Your task to perform on an android device: Clear all items from cart on ebay. Search for asus zenbook on ebay, select the first entry, and add it to the cart. Image 0: 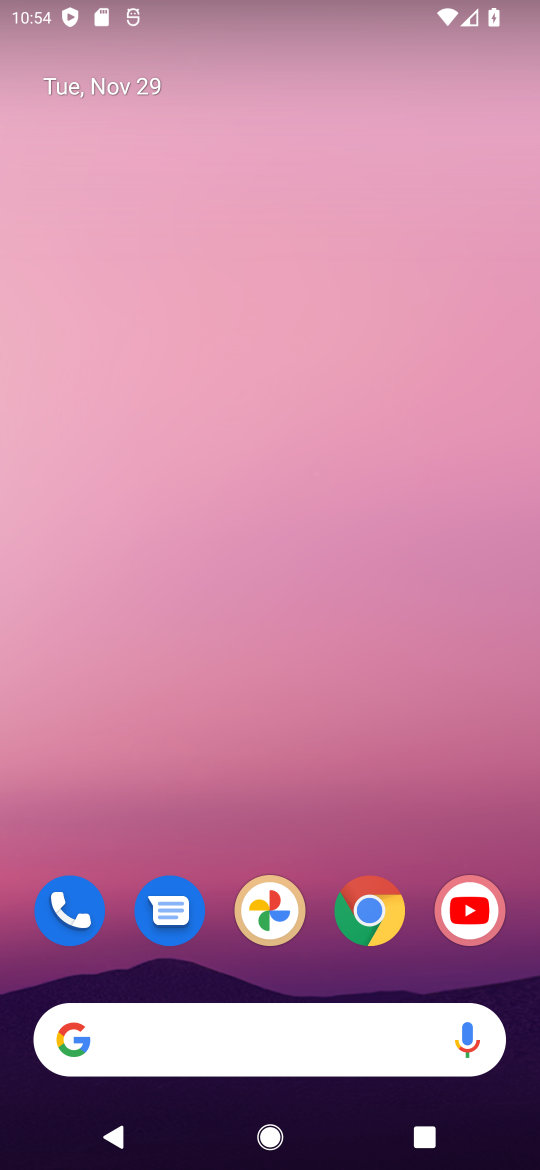
Step 0: click (371, 922)
Your task to perform on an android device: Clear all items from cart on ebay. Search for asus zenbook on ebay, select the first entry, and add it to the cart. Image 1: 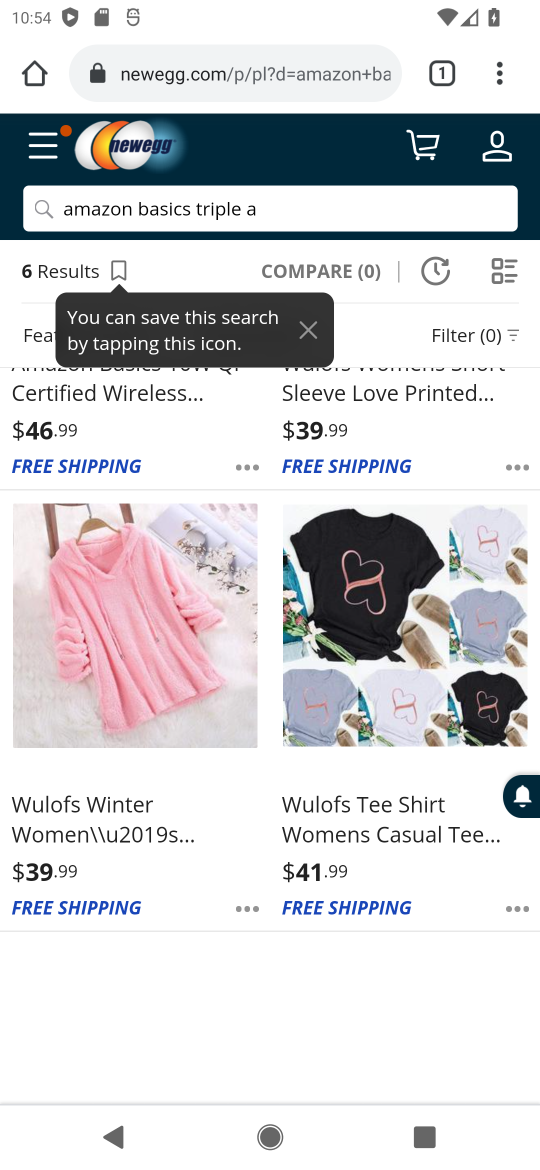
Step 1: click (225, 75)
Your task to perform on an android device: Clear all items from cart on ebay. Search for asus zenbook on ebay, select the first entry, and add it to the cart. Image 2: 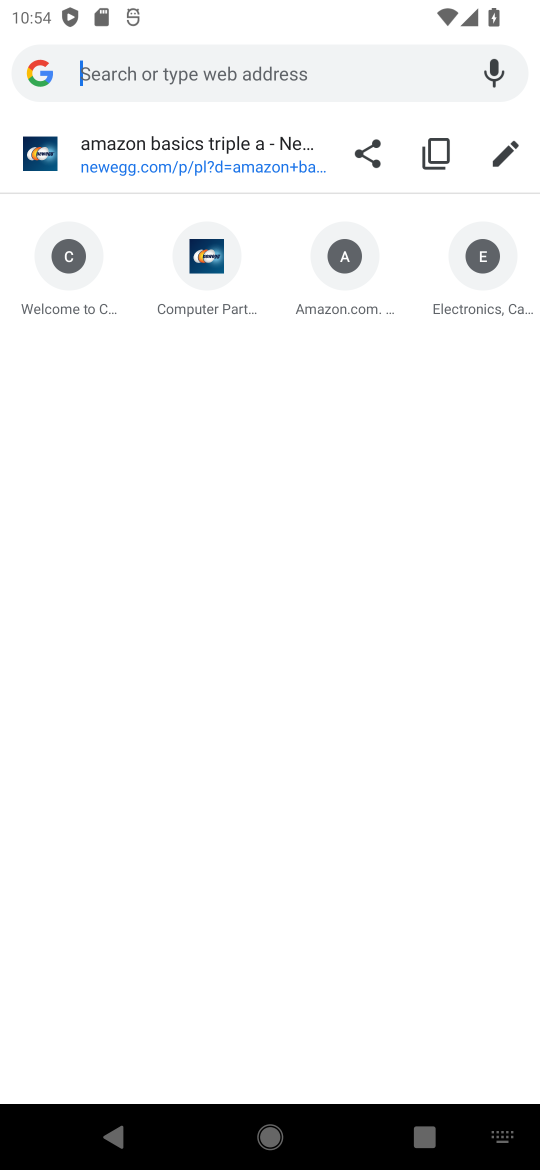
Step 2: type "ebay.com"
Your task to perform on an android device: Clear all items from cart on ebay. Search for asus zenbook on ebay, select the first entry, and add it to the cart. Image 3: 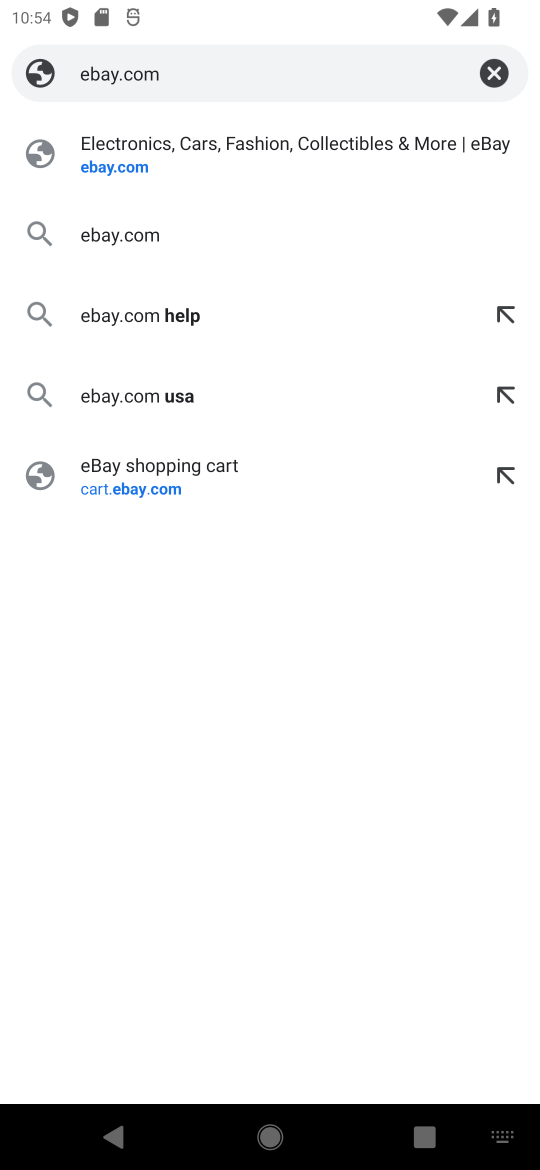
Step 3: click (86, 179)
Your task to perform on an android device: Clear all items from cart on ebay. Search for asus zenbook on ebay, select the first entry, and add it to the cart. Image 4: 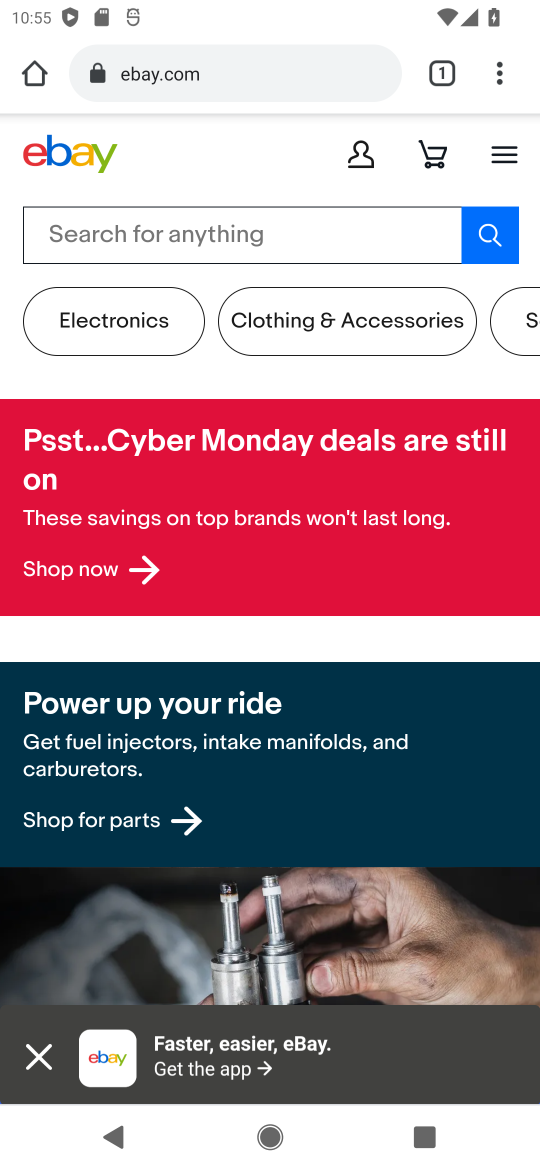
Step 4: click (438, 155)
Your task to perform on an android device: Clear all items from cart on ebay. Search for asus zenbook on ebay, select the first entry, and add it to the cart. Image 5: 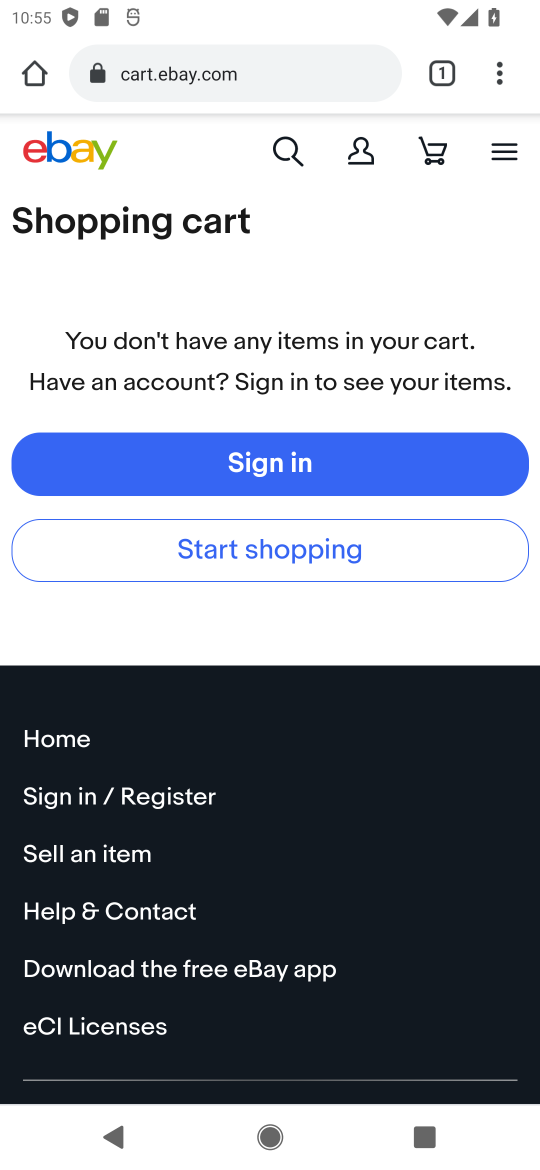
Step 5: click (293, 154)
Your task to perform on an android device: Clear all items from cart on ebay. Search for asus zenbook on ebay, select the first entry, and add it to the cart. Image 6: 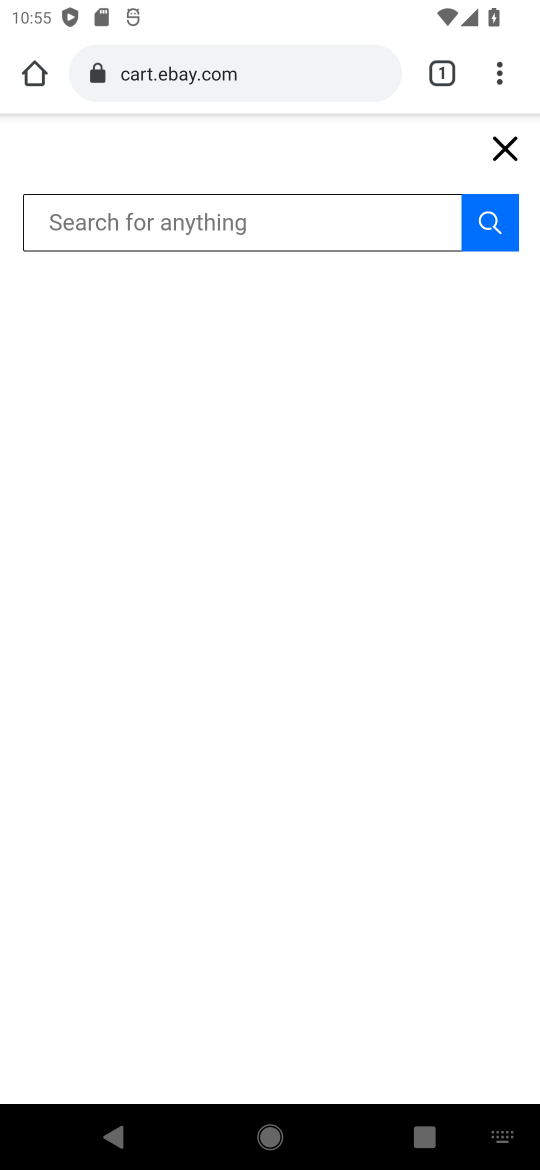
Step 6: type "asus zenbook"
Your task to perform on an android device: Clear all items from cart on ebay. Search for asus zenbook on ebay, select the first entry, and add it to the cart. Image 7: 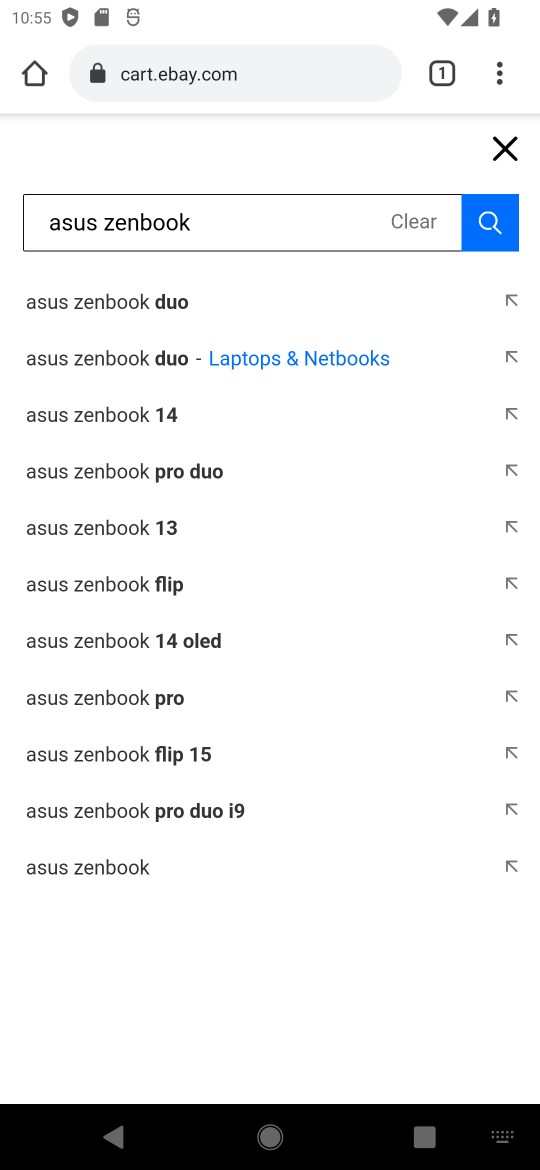
Step 7: click (81, 870)
Your task to perform on an android device: Clear all items from cart on ebay. Search for asus zenbook on ebay, select the first entry, and add it to the cart. Image 8: 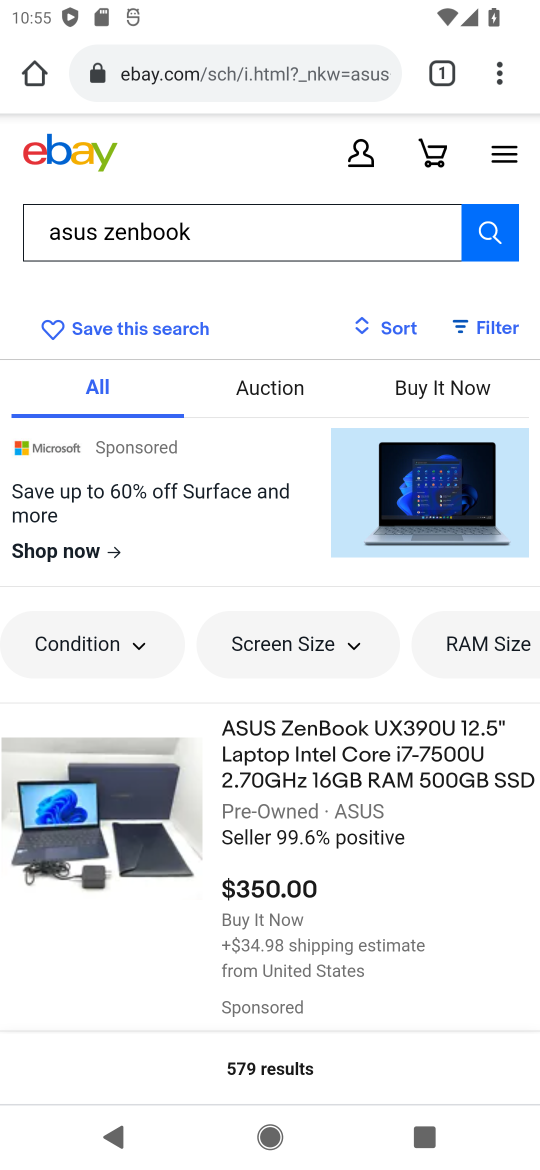
Step 8: drag from (146, 724) to (118, 455)
Your task to perform on an android device: Clear all items from cart on ebay. Search for asus zenbook on ebay, select the first entry, and add it to the cart. Image 9: 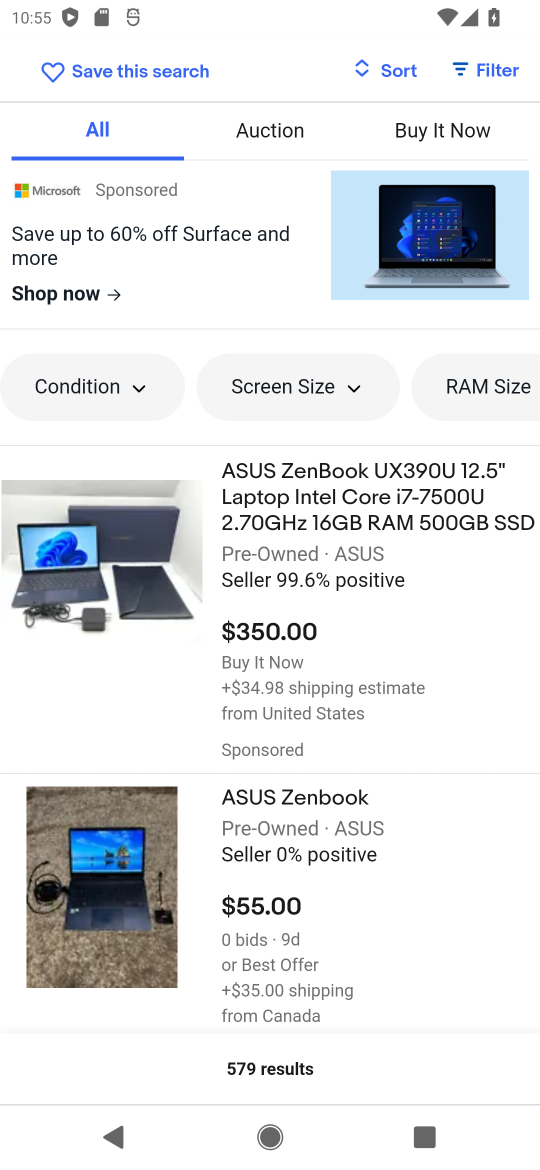
Step 9: click (298, 537)
Your task to perform on an android device: Clear all items from cart on ebay. Search for asus zenbook on ebay, select the first entry, and add it to the cart. Image 10: 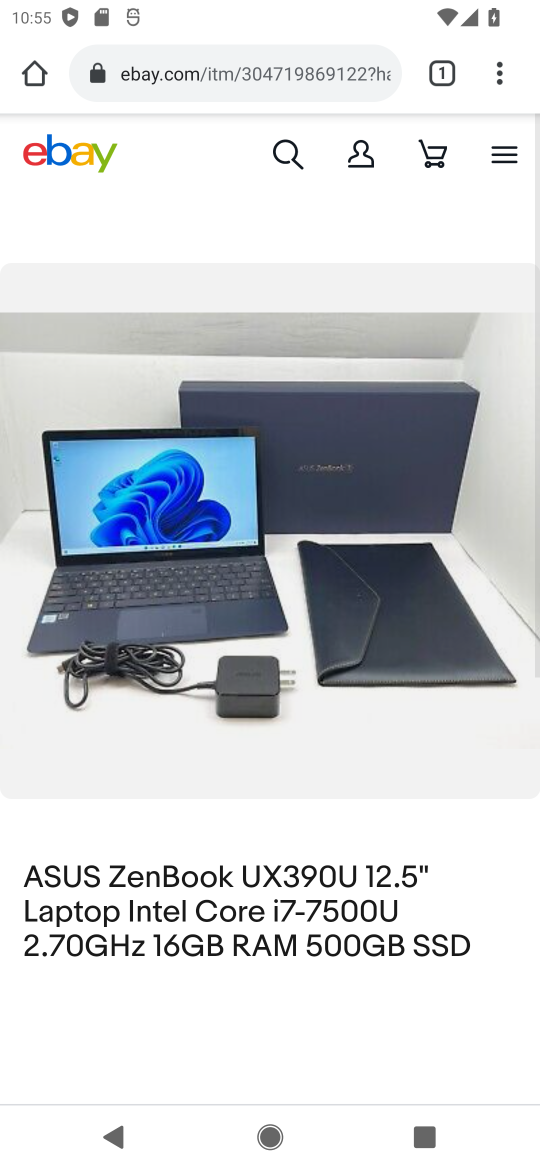
Step 10: drag from (293, 910) to (257, 338)
Your task to perform on an android device: Clear all items from cart on ebay. Search for asus zenbook on ebay, select the first entry, and add it to the cart. Image 11: 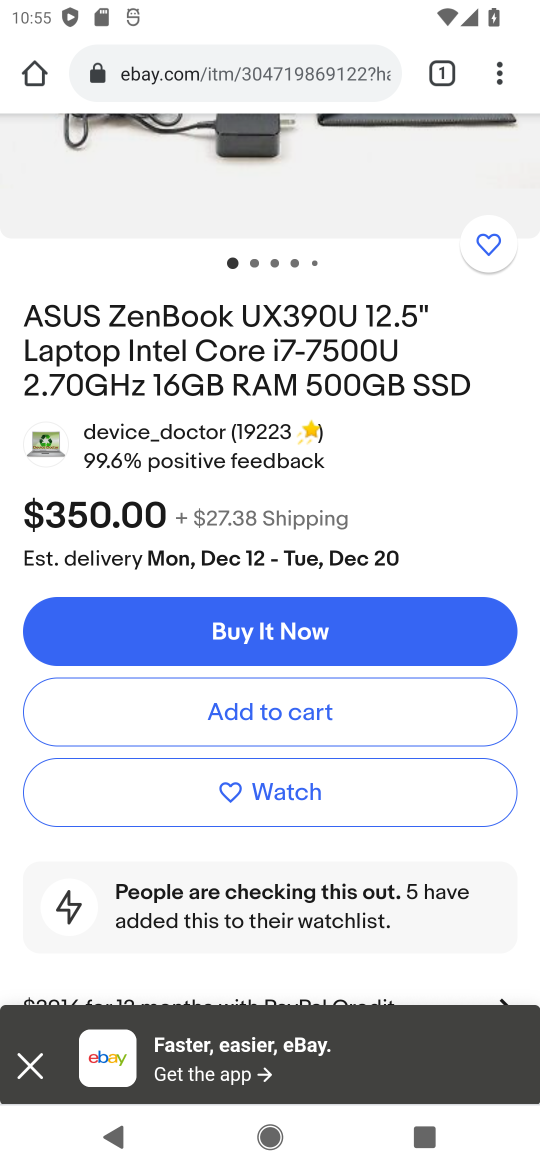
Step 11: click (253, 714)
Your task to perform on an android device: Clear all items from cart on ebay. Search for asus zenbook on ebay, select the first entry, and add it to the cart. Image 12: 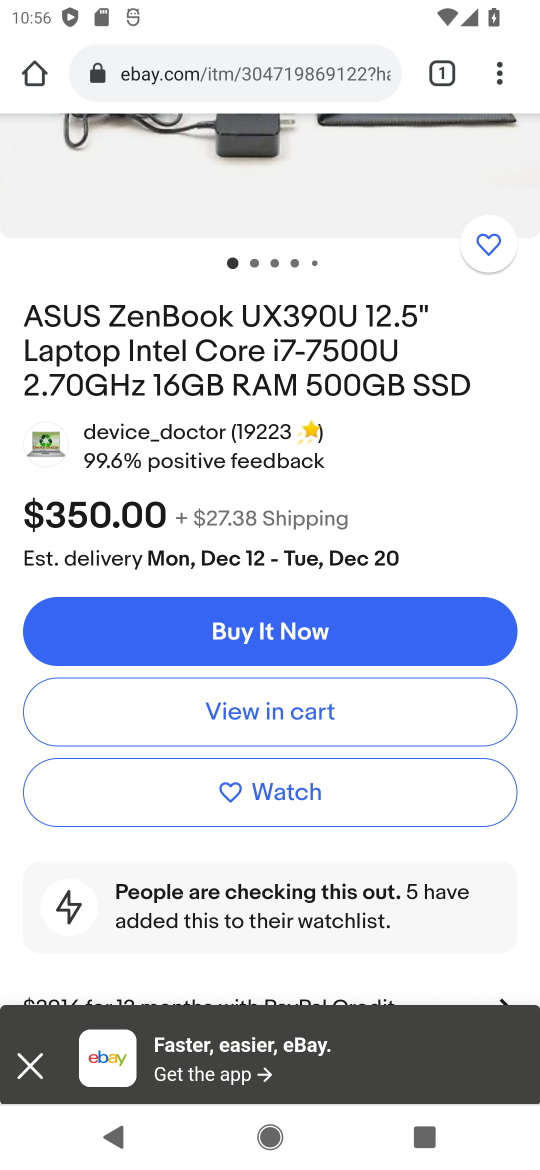
Step 12: task complete